Your task to perform on an android device: turn off wifi Image 0: 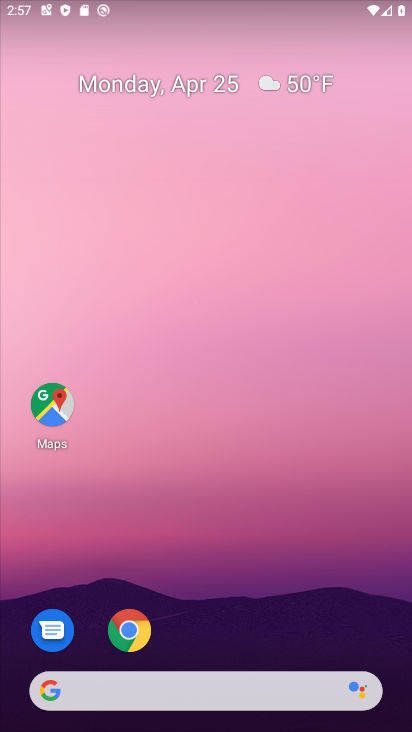
Step 0: drag from (169, 448) to (17, 115)
Your task to perform on an android device: turn off wifi Image 1: 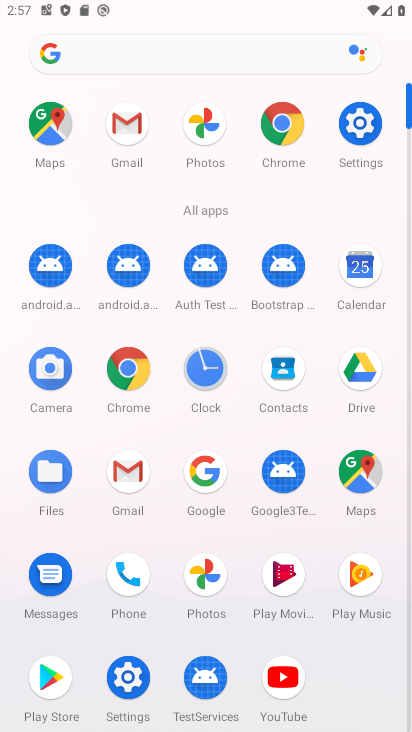
Step 1: click (365, 127)
Your task to perform on an android device: turn off wifi Image 2: 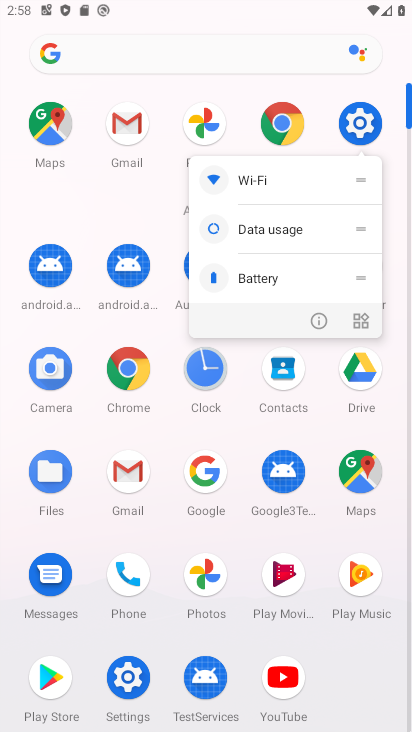
Step 2: click (260, 174)
Your task to perform on an android device: turn off wifi Image 3: 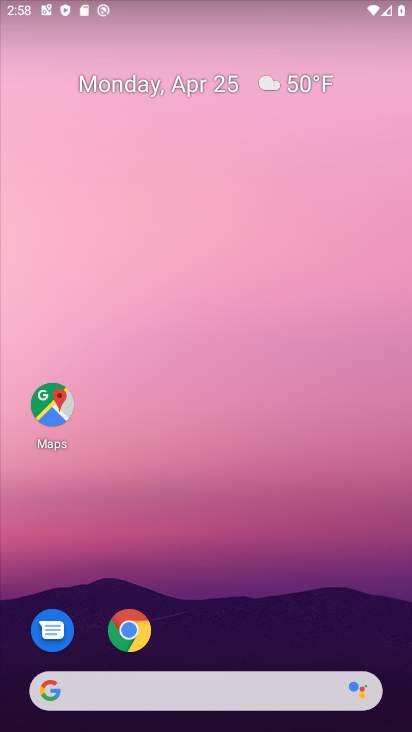
Step 3: drag from (214, 492) to (125, 36)
Your task to perform on an android device: turn off wifi Image 4: 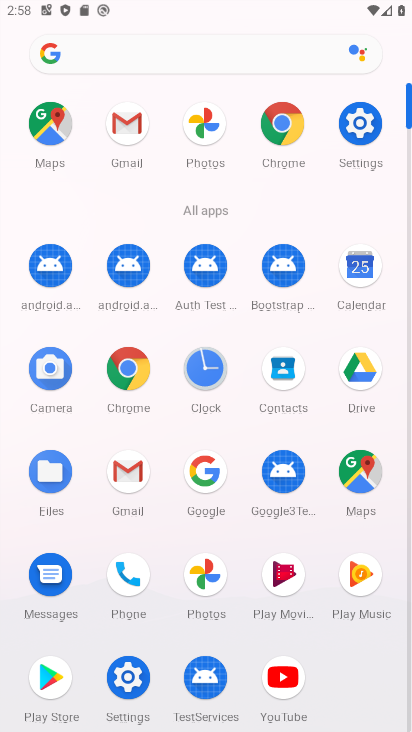
Step 4: click (353, 129)
Your task to perform on an android device: turn off wifi Image 5: 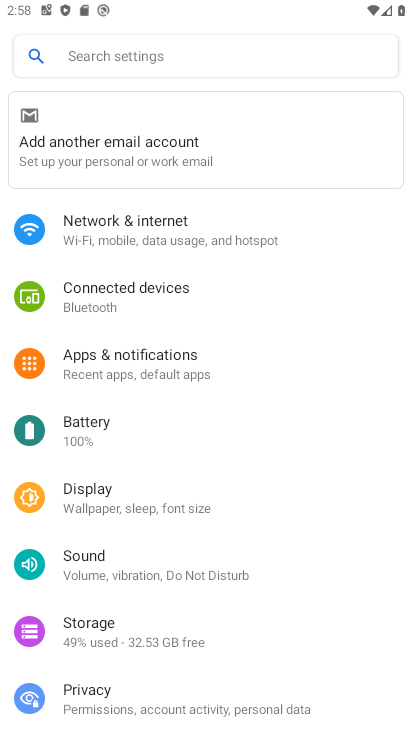
Step 5: click (95, 239)
Your task to perform on an android device: turn off wifi Image 6: 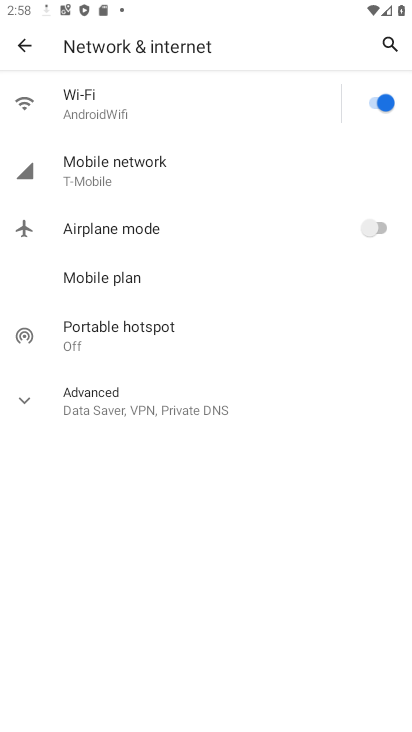
Step 6: click (386, 100)
Your task to perform on an android device: turn off wifi Image 7: 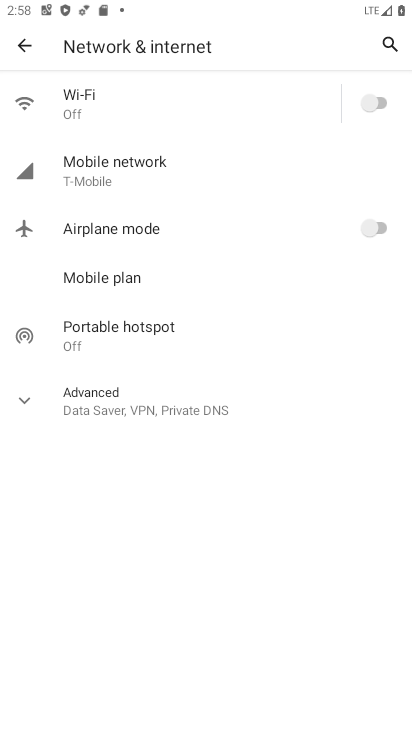
Step 7: task complete